Your task to perform on an android device: Go to Yahoo.com Image 0: 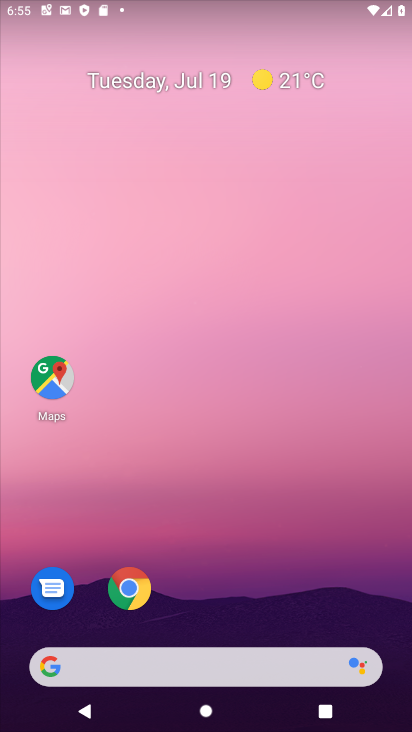
Step 0: drag from (235, 603) to (229, 101)
Your task to perform on an android device: Go to Yahoo.com Image 1: 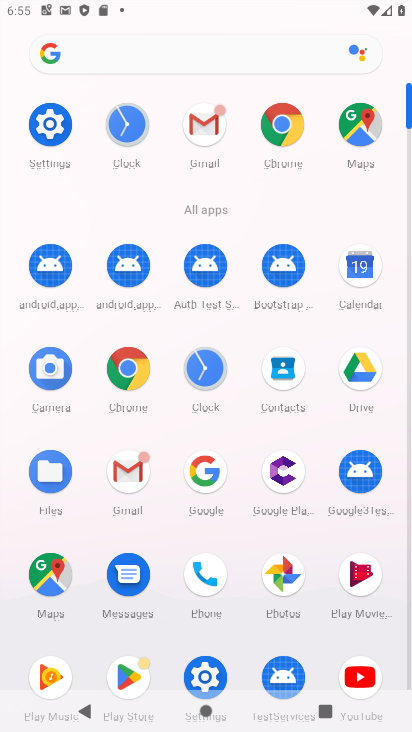
Step 1: click (143, 377)
Your task to perform on an android device: Go to Yahoo.com Image 2: 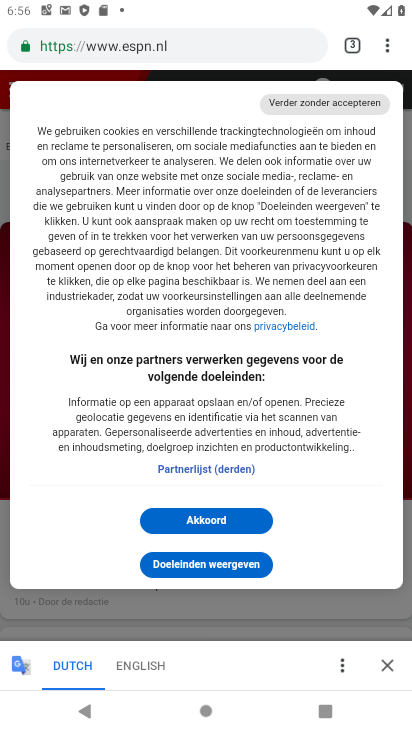
Step 2: click (359, 46)
Your task to perform on an android device: Go to Yahoo.com Image 3: 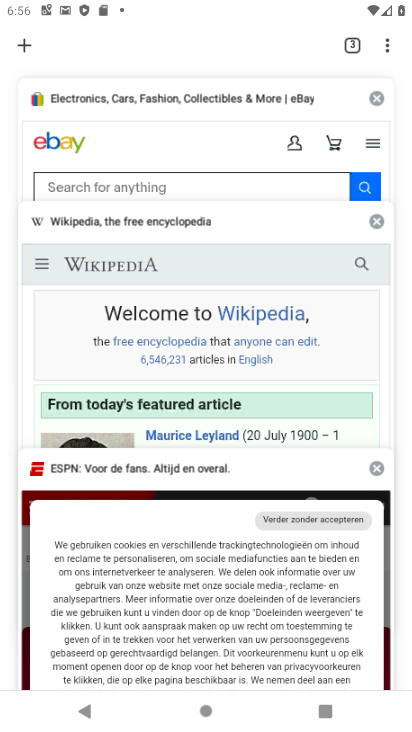
Step 3: click (24, 52)
Your task to perform on an android device: Go to Yahoo.com Image 4: 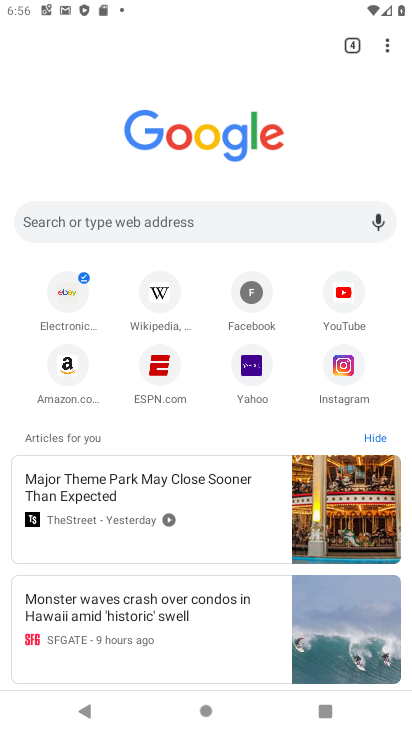
Step 4: click (246, 379)
Your task to perform on an android device: Go to Yahoo.com Image 5: 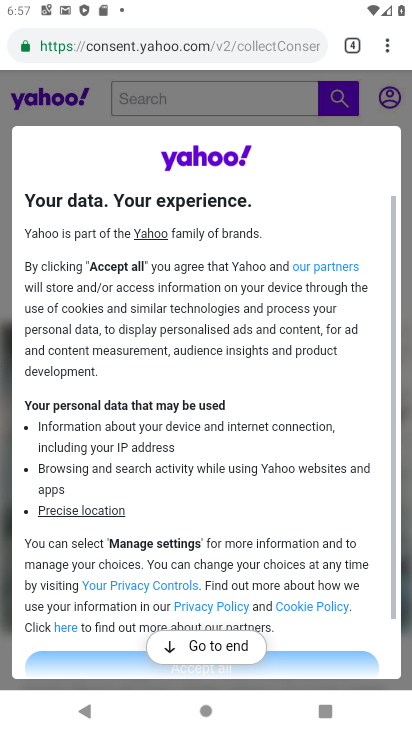
Step 5: task complete